Your task to perform on an android device: set an alarm Image 0: 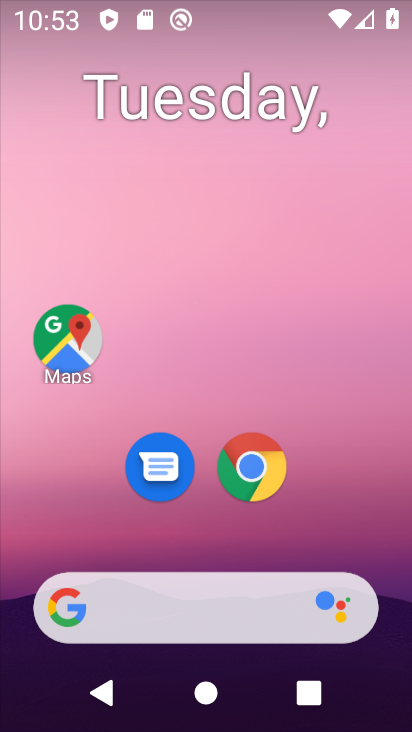
Step 0: drag from (98, 445) to (266, 6)
Your task to perform on an android device: set an alarm Image 1: 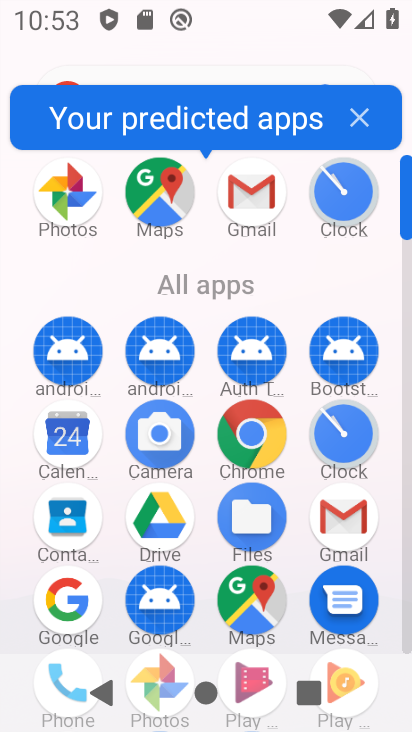
Step 1: click (335, 446)
Your task to perform on an android device: set an alarm Image 2: 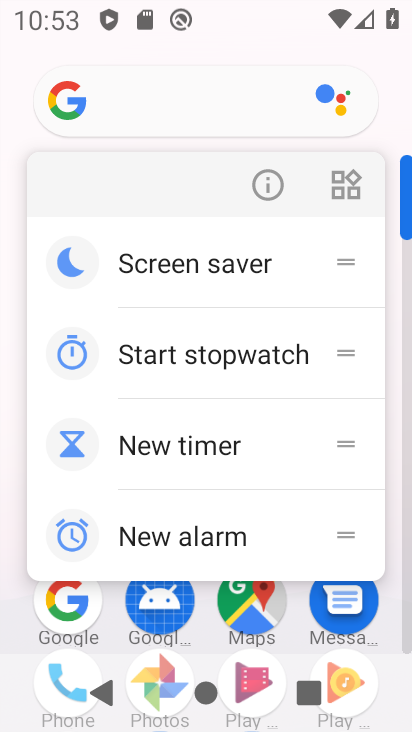
Step 2: press back button
Your task to perform on an android device: set an alarm Image 3: 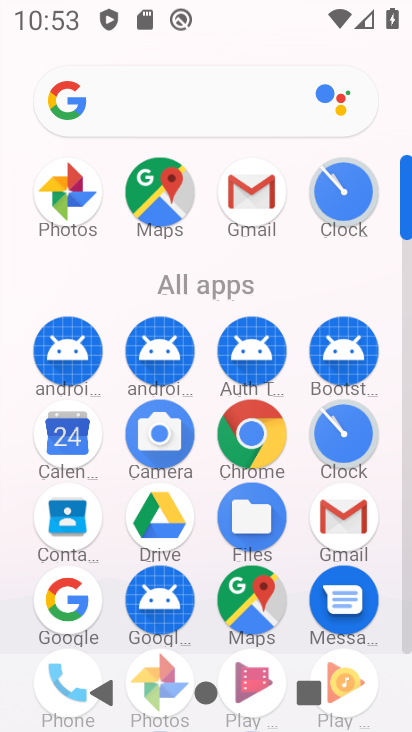
Step 3: click (341, 429)
Your task to perform on an android device: set an alarm Image 4: 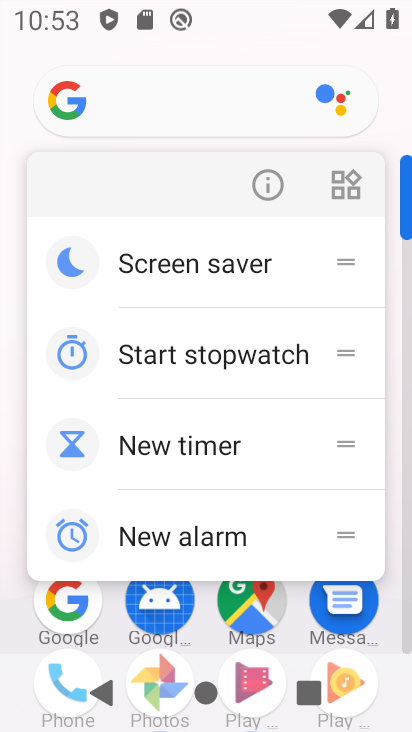
Step 4: press back button
Your task to perform on an android device: set an alarm Image 5: 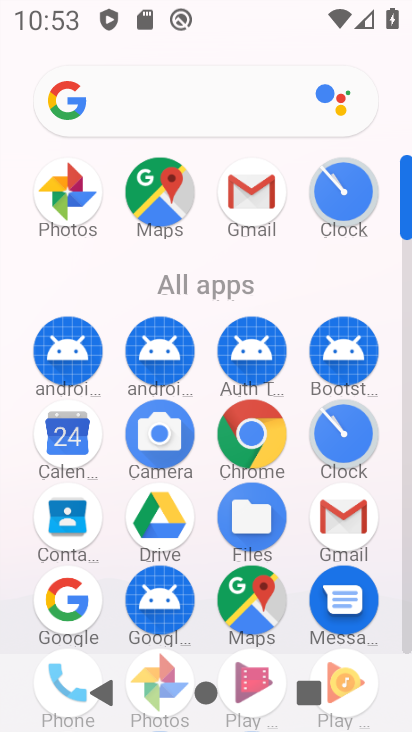
Step 5: click (374, 423)
Your task to perform on an android device: set an alarm Image 6: 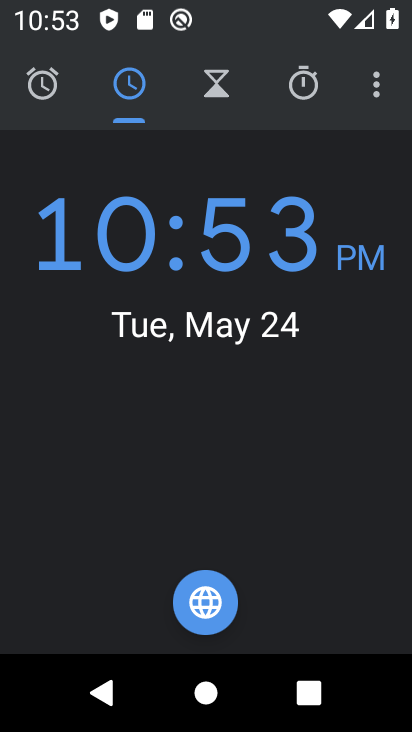
Step 6: click (53, 97)
Your task to perform on an android device: set an alarm Image 7: 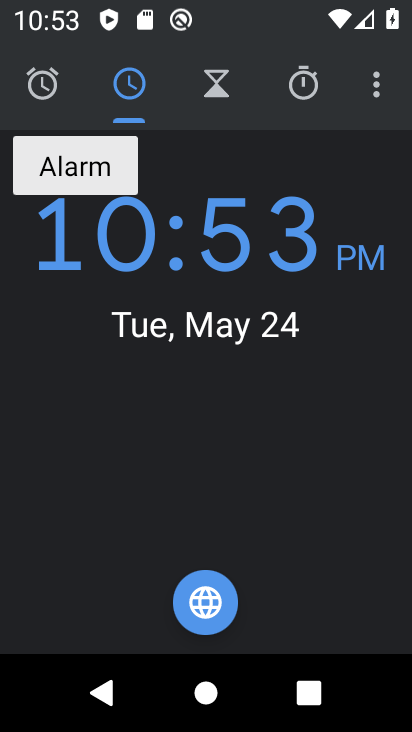
Step 7: click (53, 96)
Your task to perform on an android device: set an alarm Image 8: 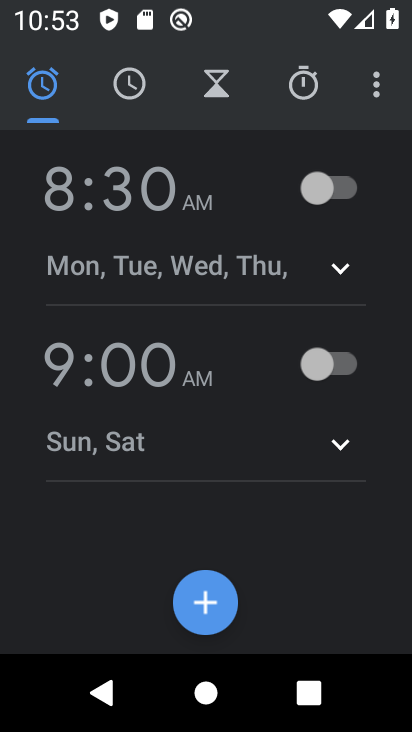
Step 8: click (359, 184)
Your task to perform on an android device: set an alarm Image 9: 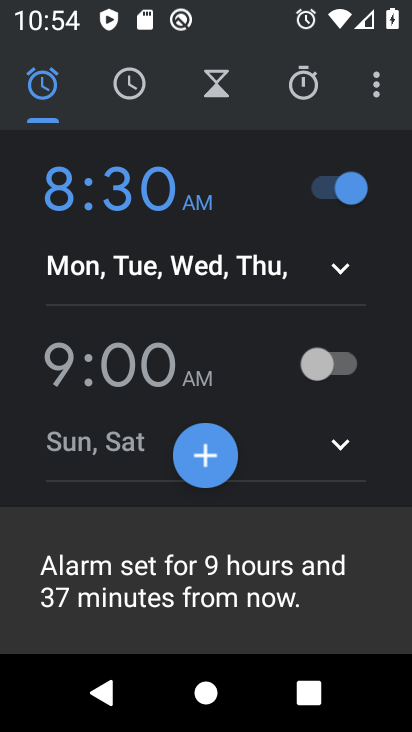
Step 9: task complete